Your task to perform on an android device: find snoozed emails in the gmail app Image 0: 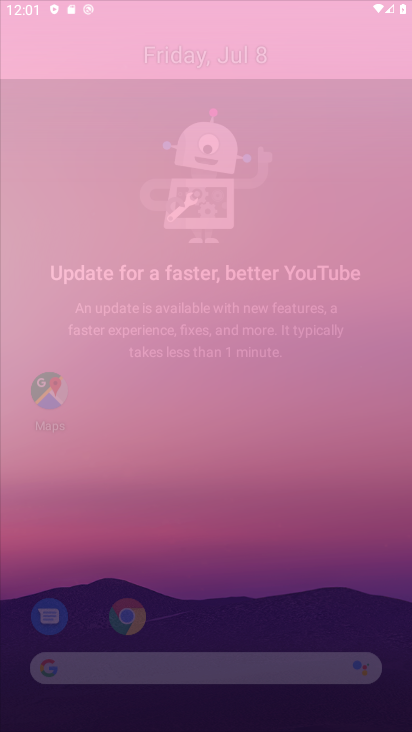
Step 0: press home button
Your task to perform on an android device: find snoozed emails in the gmail app Image 1: 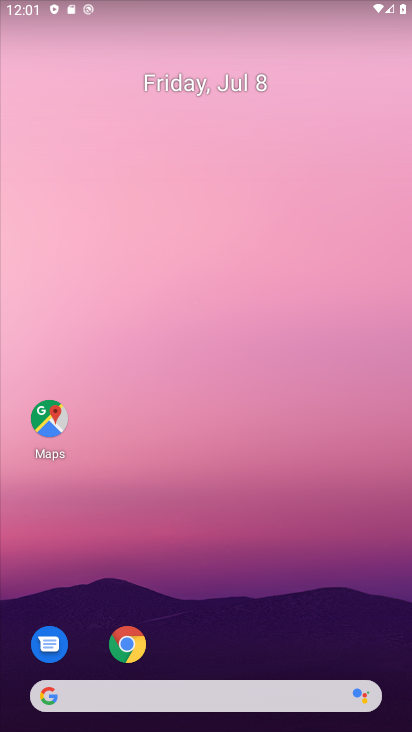
Step 1: drag from (208, 688) to (171, 337)
Your task to perform on an android device: find snoozed emails in the gmail app Image 2: 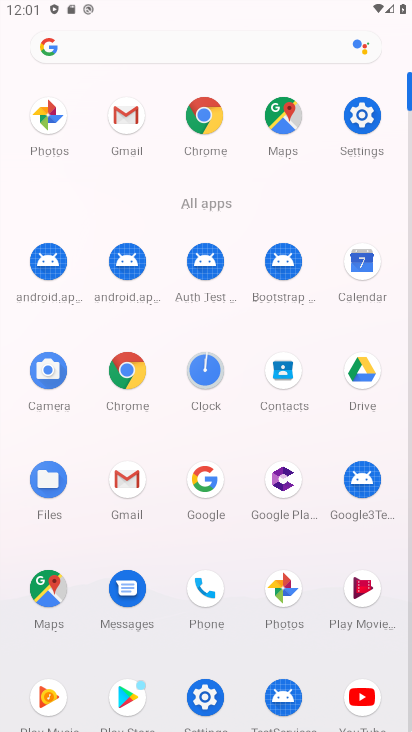
Step 2: click (114, 116)
Your task to perform on an android device: find snoozed emails in the gmail app Image 3: 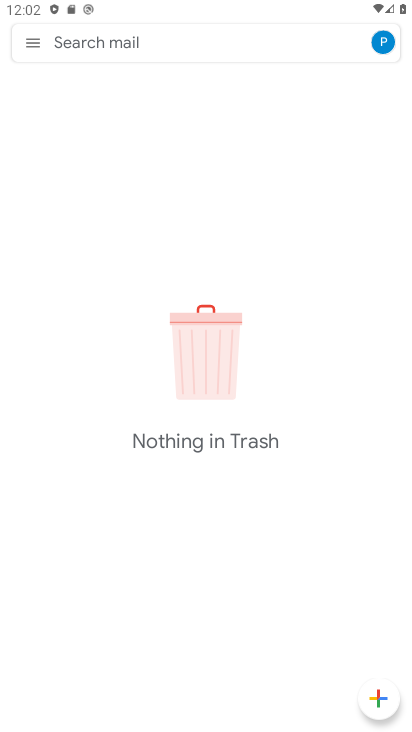
Step 3: click (30, 51)
Your task to perform on an android device: find snoozed emails in the gmail app Image 4: 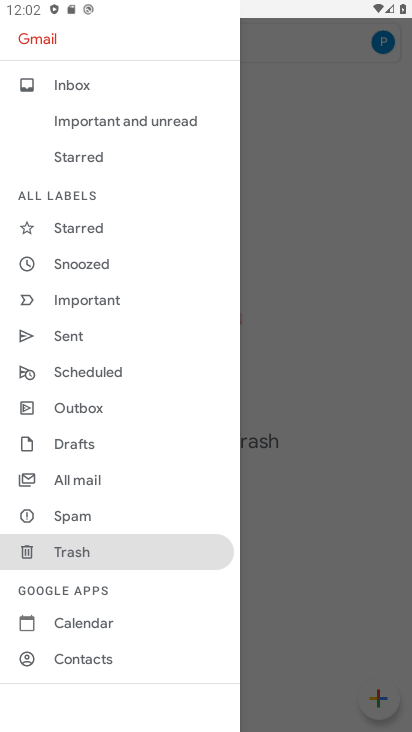
Step 4: click (76, 265)
Your task to perform on an android device: find snoozed emails in the gmail app Image 5: 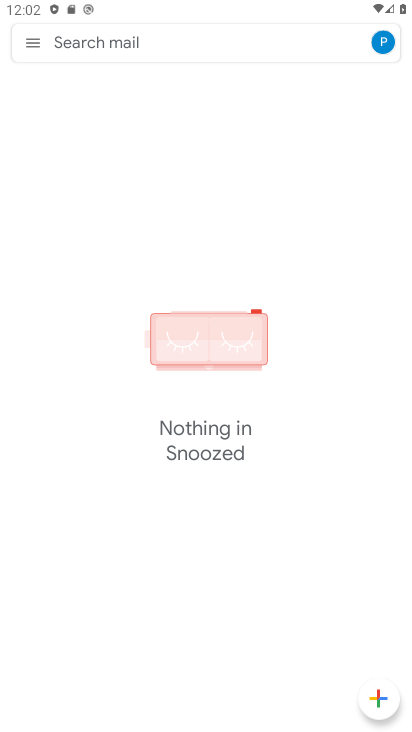
Step 5: task complete